Your task to perform on an android device: stop showing notifications on the lock screen Image 0: 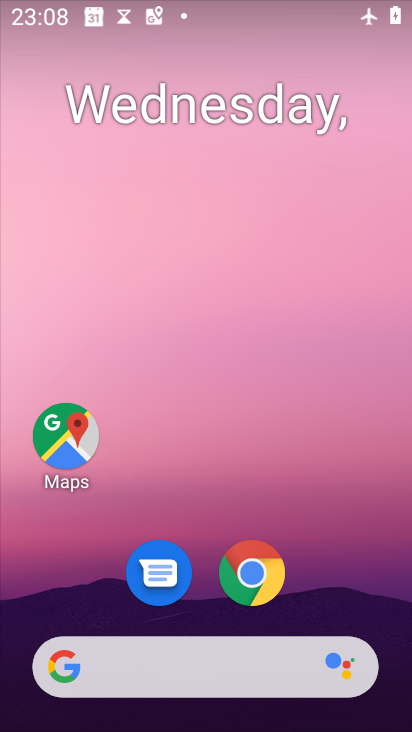
Step 0: drag from (315, 571) to (245, 186)
Your task to perform on an android device: stop showing notifications on the lock screen Image 1: 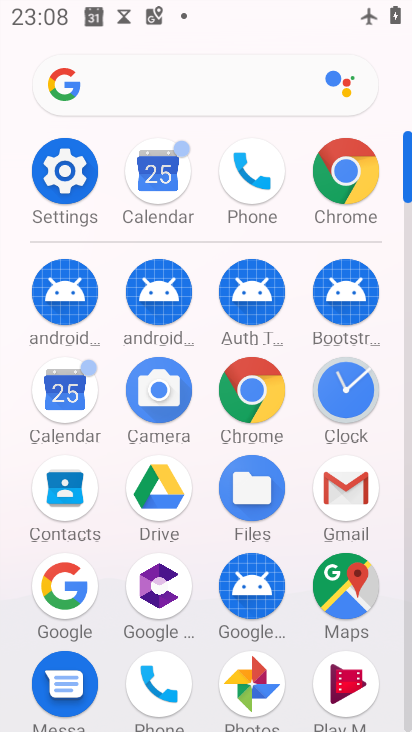
Step 1: click (70, 160)
Your task to perform on an android device: stop showing notifications on the lock screen Image 2: 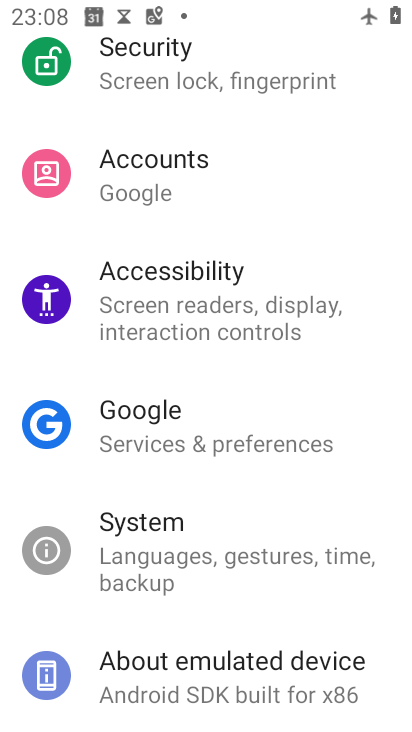
Step 2: drag from (204, 135) to (193, 716)
Your task to perform on an android device: stop showing notifications on the lock screen Image 3: 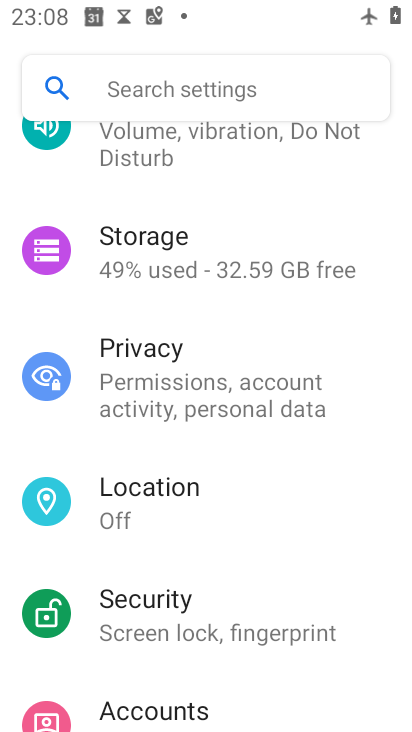
Step 3: drag from (231, 163) to (223, 663)
Your task to perform on an android device: stop showing notifications on the lock screen Image 4: 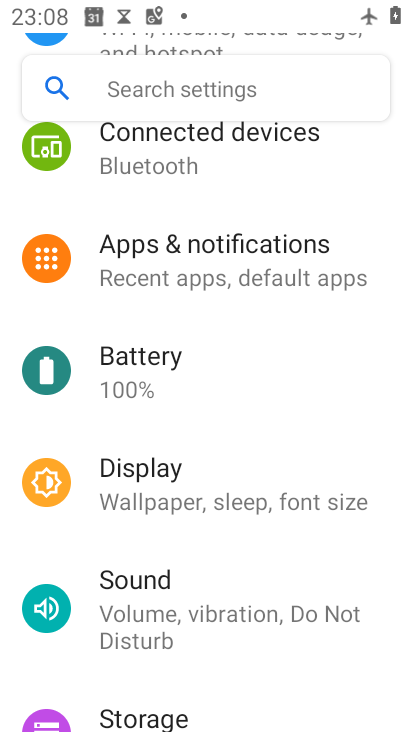
Step 4: drag from (223, 150) to (237, 607)
Your task to perform on an android device: stop showing notifications on the lock screen Image 5: 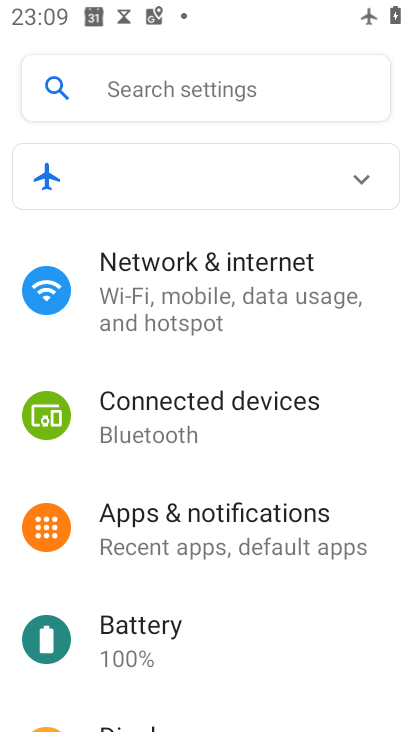
Step 5: click (202, 283)
Your task to perform on an android device: stop showing notifications on the lock screen Image 6: 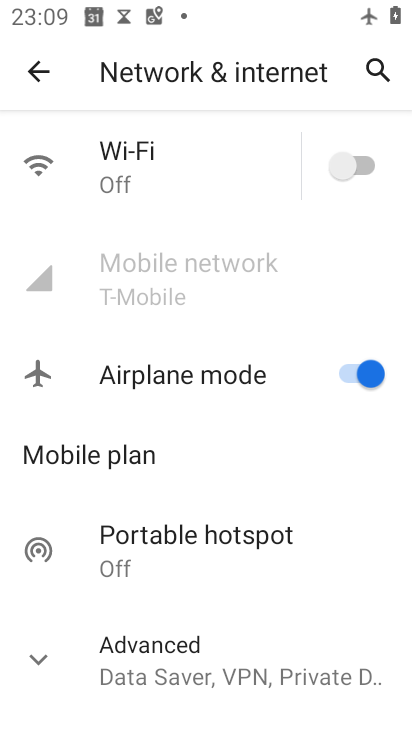
Step 6: click (16, 74)
Your task to perform on an android device: stop showing notifications on the lock screen Image 7: 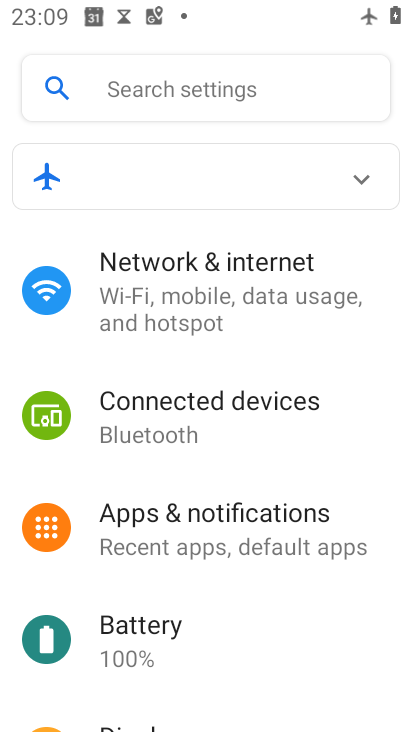
Step 7: click (202, 558)
Your task to perform on an android device: stop showing notifications on the lock screen Image 8: 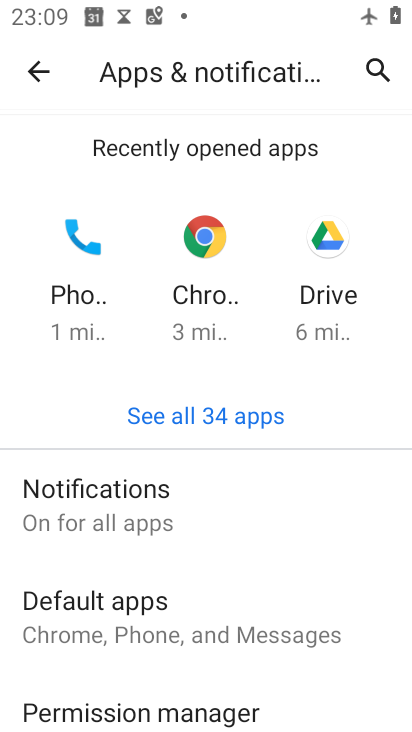
Step 8: click (157, 516)
Your task to perform on an android device: stop showing notifications on the lock screen Image 9: 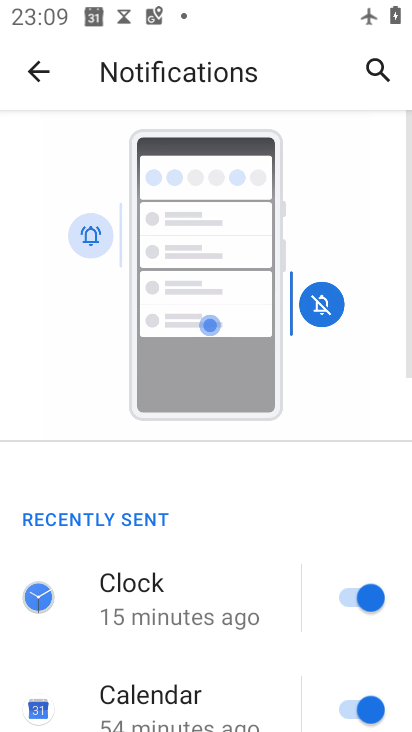
Step 9: drag from (188, 564) to (201, 207)
Your task to perform on an android device: stop showing notifications on the lock screen Image 10: 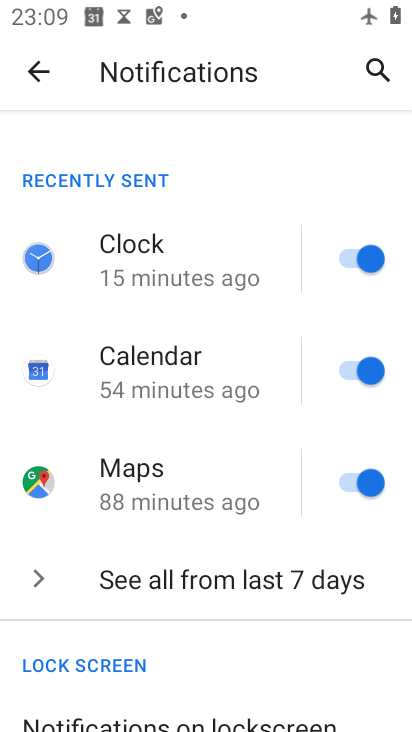
Step 10: drag from (185, 594) to (214, 248)
Your task to perform on an android device: stop showing notifications on the lock screen Image 11: 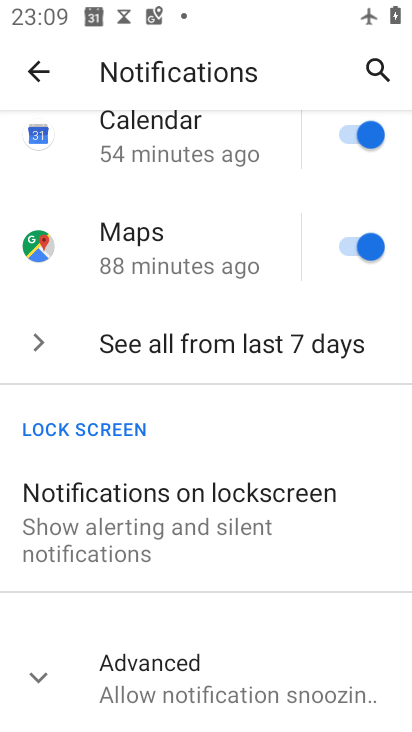
Step 11: click (220, 537)
Your task to perform on an android device: stop showing notifications on the lock screen Image 12: 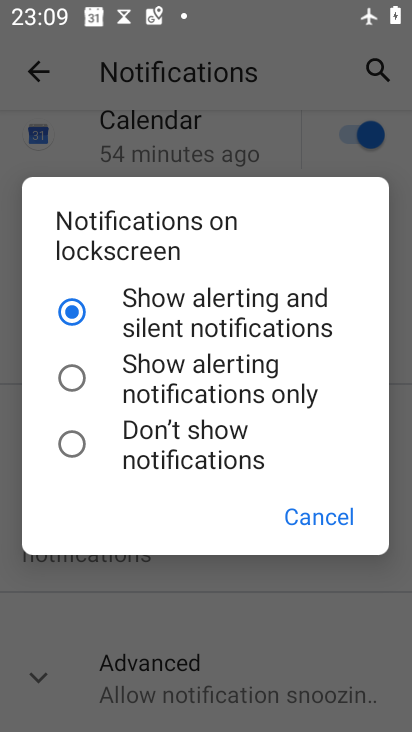
Step 12: click (170, 441)
Your task to perform on an android device: stop showing notifications on the lock screen Image 13: 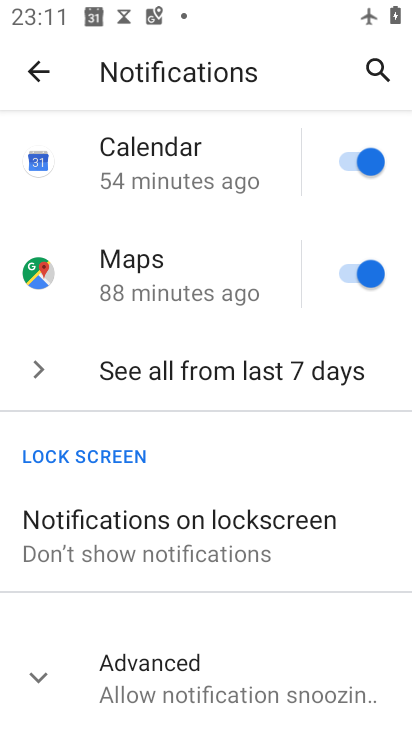
Step 13: task complete